Your task to perform on an android device: add a contact in the contacts app Image 0: 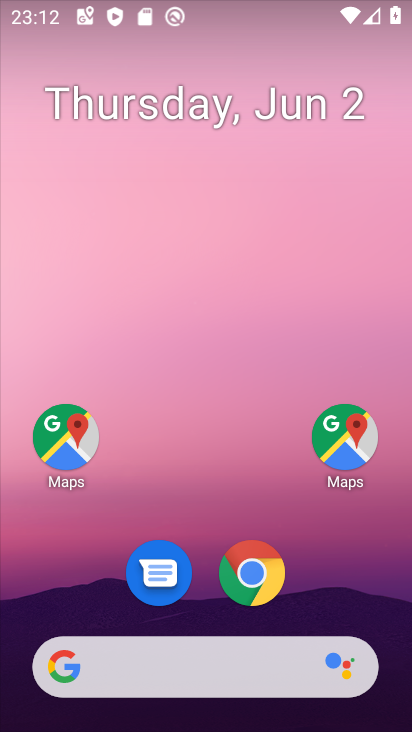
Step 0: drag from (311, 568) to (299, 211)
Your task to perform on an android device: add a contact in the contacts app Image 1: 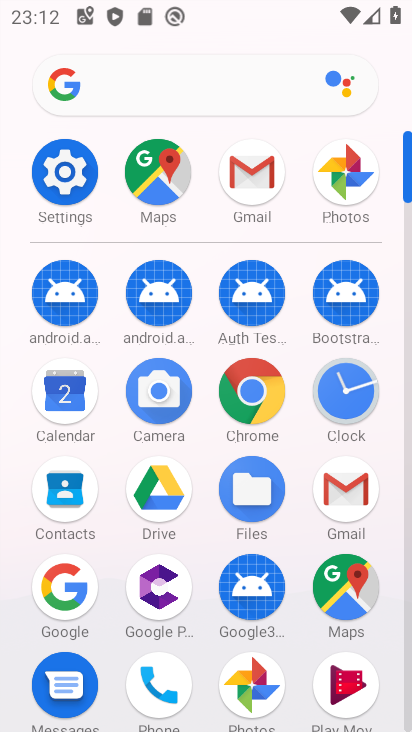
Step 1: click (62, 479)
Your task to perform on an android device: add a contact in the contacts app Image 2: 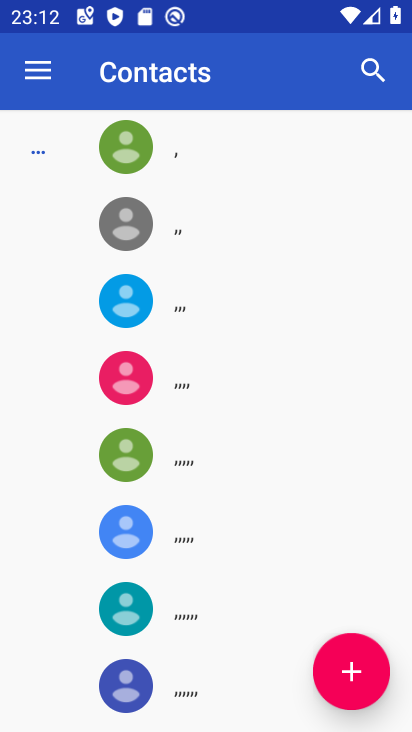
Step 2: click (355, 665)
Your task to perform on an android device: add a contact in the contacts app Image 3: 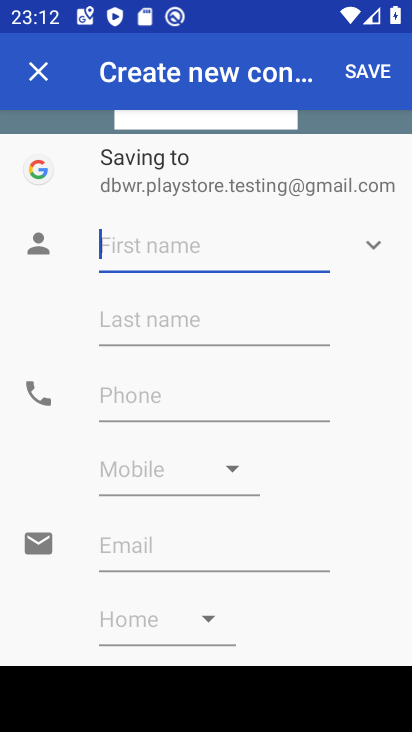
Step 3: type "dg"
Your task to perform on an android device: add a contact in the contacts app Image 4: 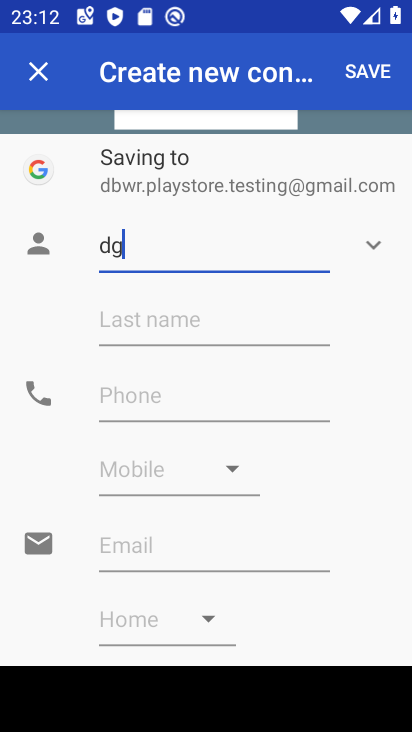
Step 4: click (158, 402)
Your task to perform on an android device: add a contact in the contacts app Image 5: 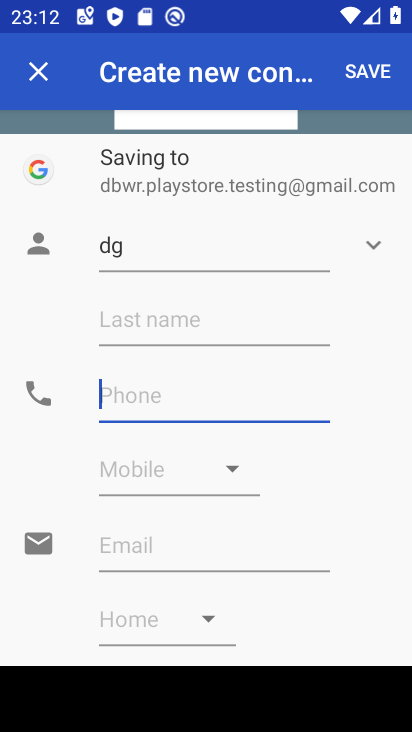
Step 5: type "8974400"
Your task to perform on an android device: add a contact in the contacts app Image 6: 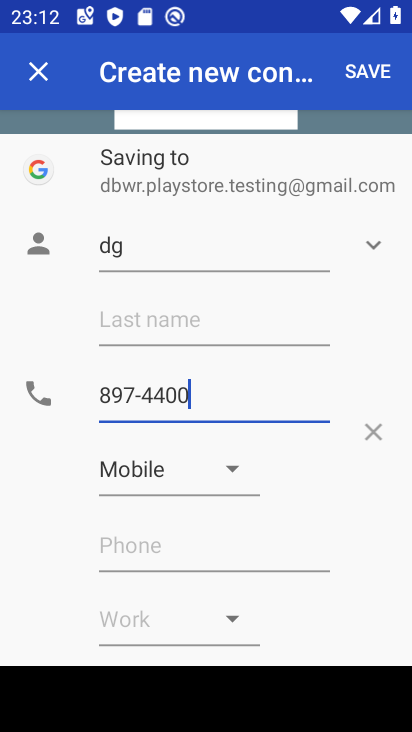
Step 6: click (362, 62)
Your task to perform on an android device: add a contact in the contacts app Image 7: 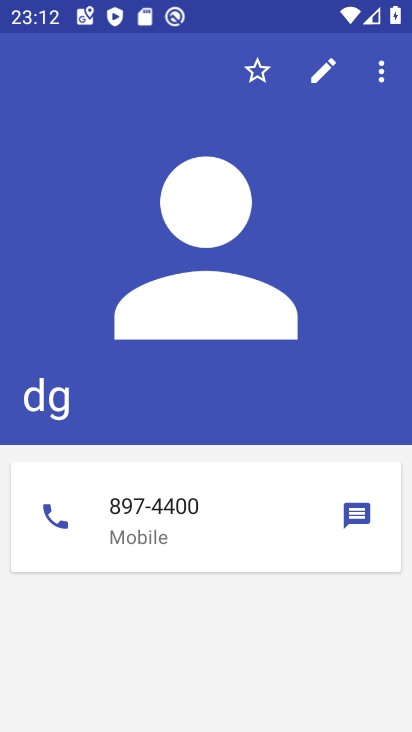
Step 7: task complete